Your task to perform on an android device: see tabs open on other devices in the chrome app Image 0: 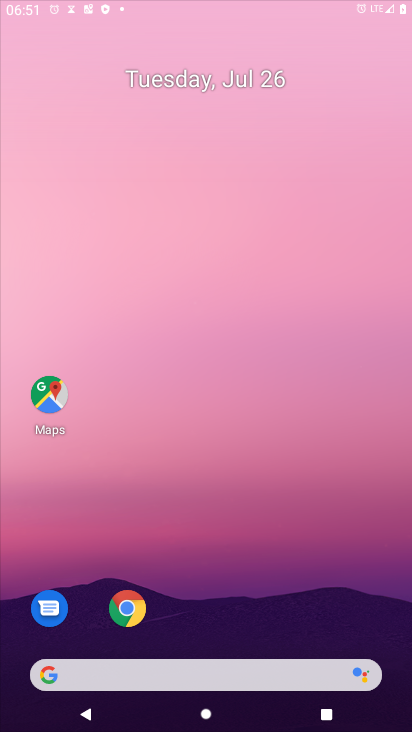
Step 0: press home button
Your task to perform on an android device: see tabs open on other devices in the chrome app Image 1: 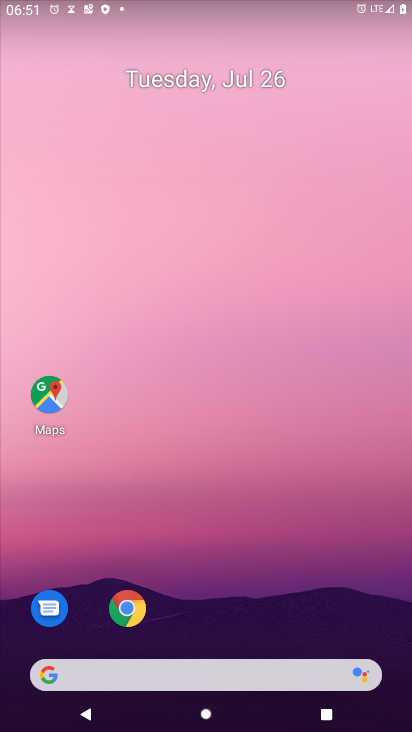
Step 1: drag from (276, 567) to (308, 157)
Your task to perform on an android device: see tabs open on other devices in the chrome app Image 2: 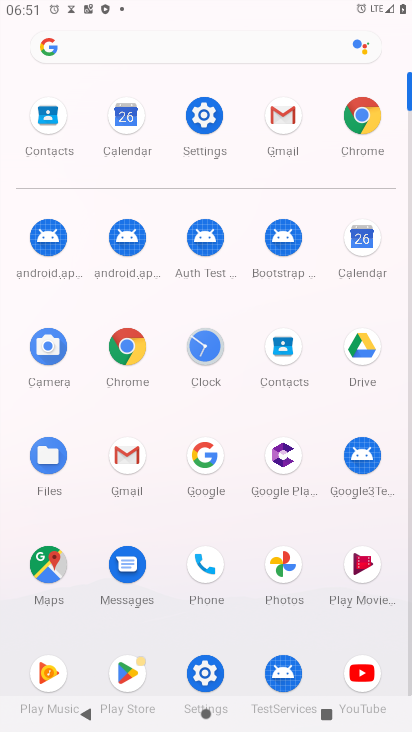
Step 2: click (141, 358)
Your task to perform on an android device: see tabs open on other devices in the chrome app Image 3: 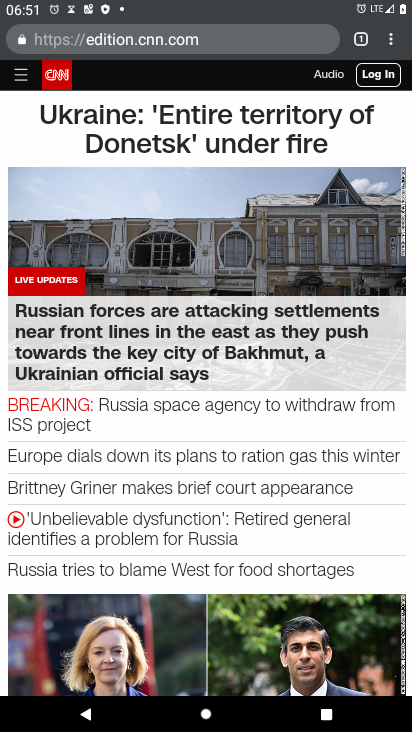
Step 3: task complete